Your task to perform on an android device: Go to internet settings Image 0: 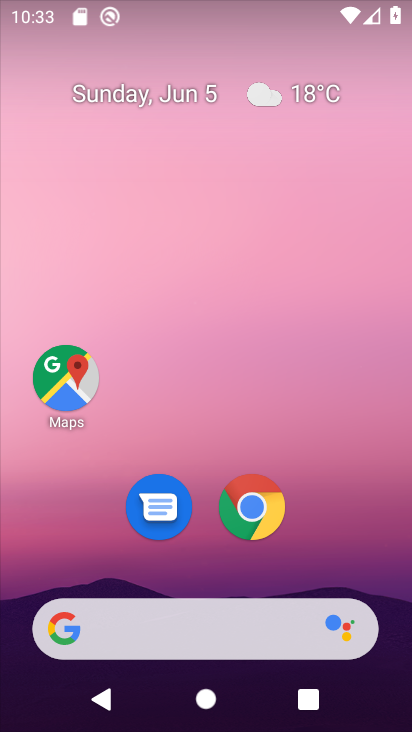
Step 0: drag from (209, 573) to (233, 204)
Your task to perform on an android device: Go to internet settings Image 1: 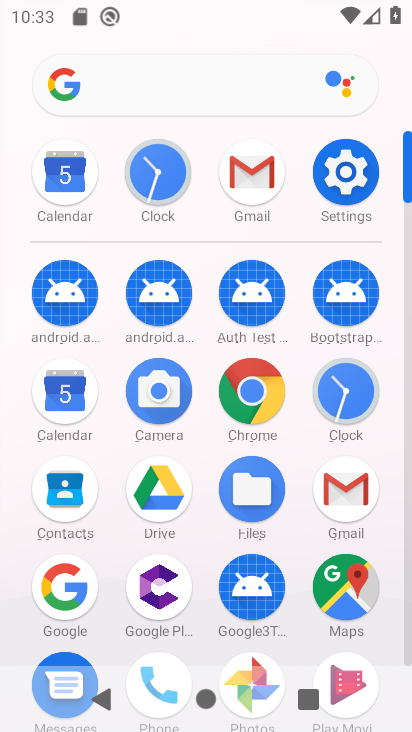
Step 1: click (353, 174)
Your task to perform on an android device: Go to internet settings Image 2: 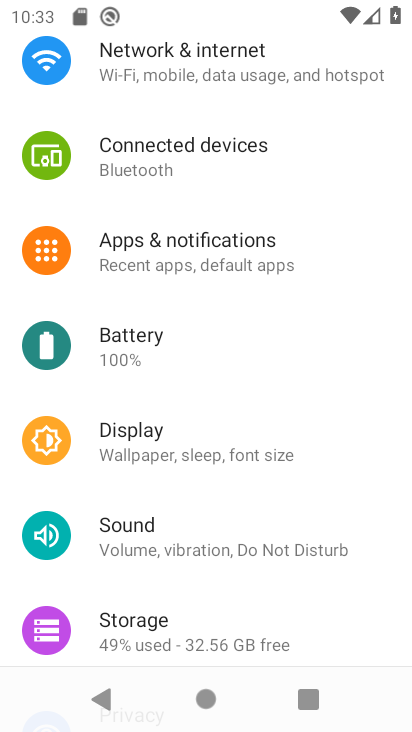
Step 2: click (221, 93)
Your task to perform on an android device: Go to internet settings Image 3: 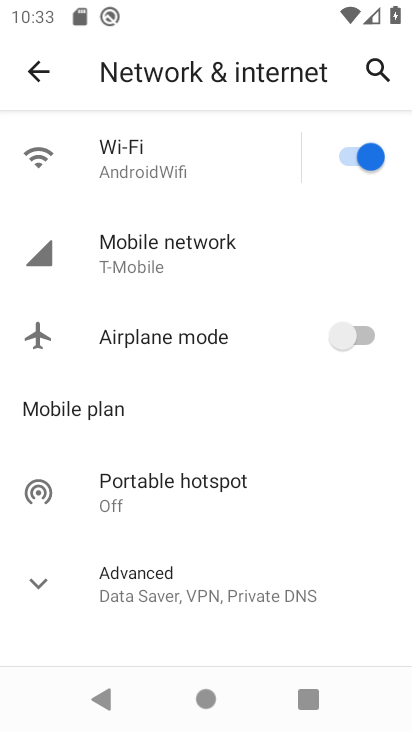
Step 3: task complete